Your task to perform on an android device: set default search engine in the chrome app Image 0: 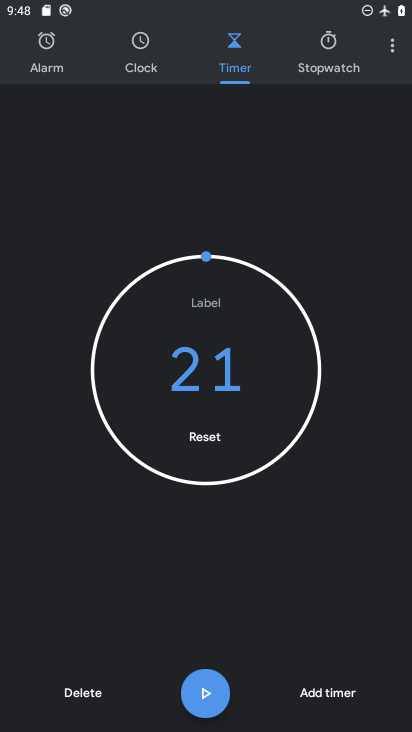
Step 0: press home button
Your task to perform on an android device: set default search engine in the chrome app Image 1: 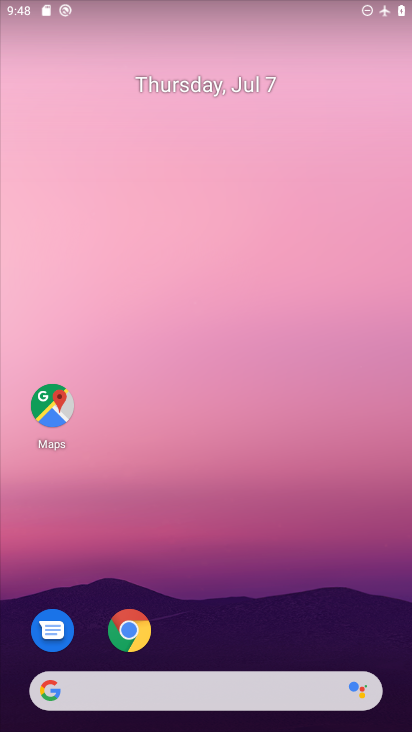
Step 1: click (138, 623)
Your task to perform on an android device: set default search engine in the chrome app Image 2: 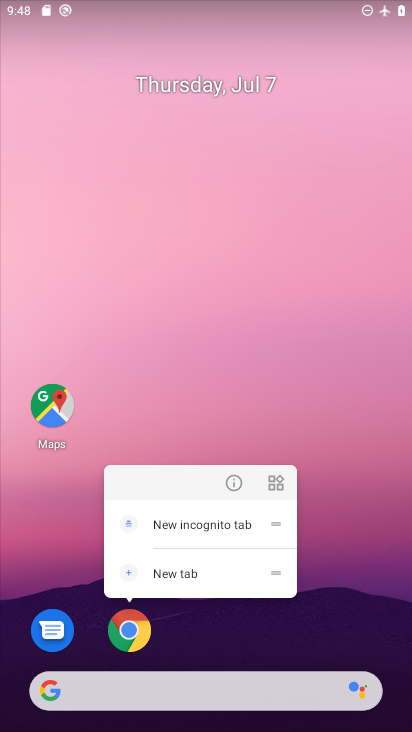
Step 2: click (145, 637)
Your task to perform on an android device: set default search engine in the chrome app Image 3: 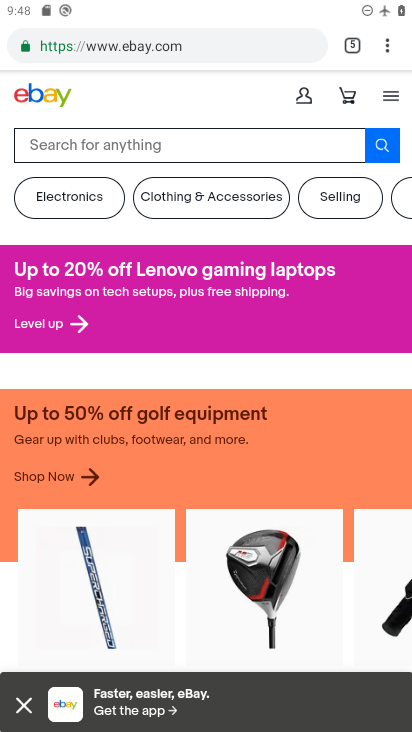
Step 3: click (384, 39)
Your task to perform on an android device: set default search engine in the chrome app Image 4: 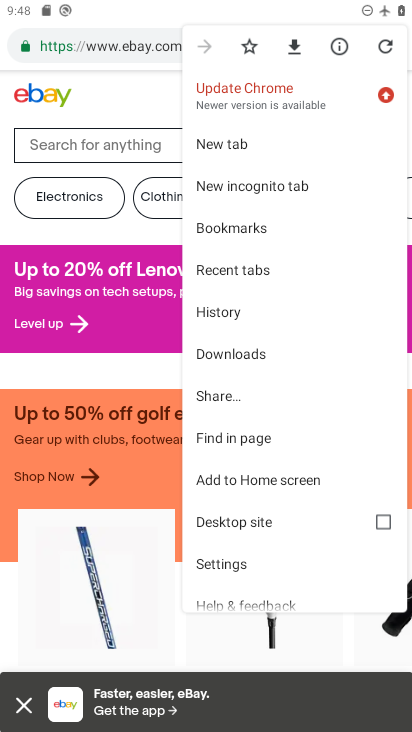
Step 4: click (251, 560)
Your task to perform on an android device: set default search engine in the chrome app Image 5: 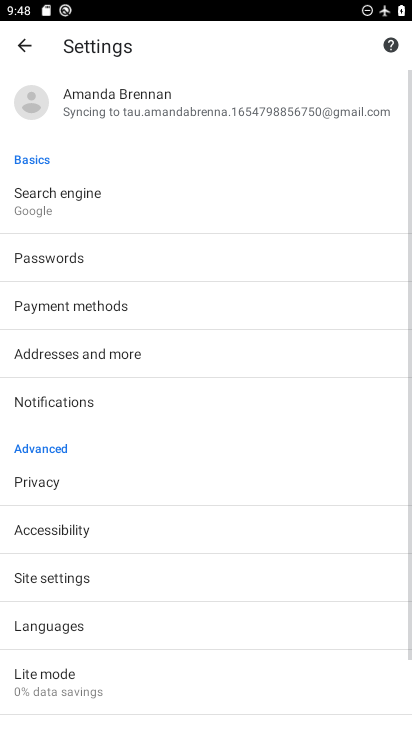
Step 5: click (74, 210)
Your task to perform on an android device: set default search engine in the chrome app Image 6: 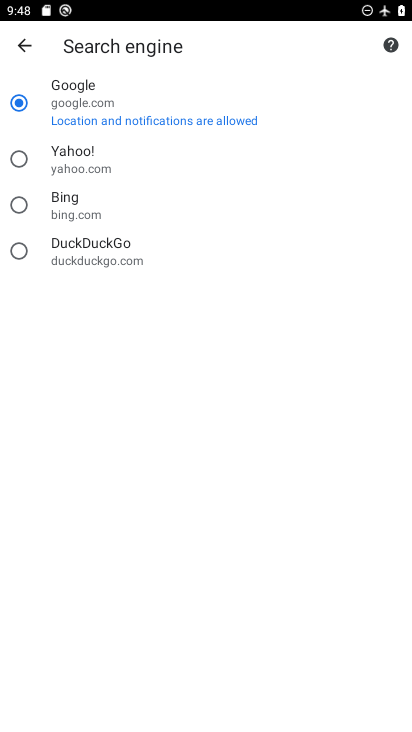
Step 6: task complete